Your task to perform on an android device: What's the weather? Image 0: 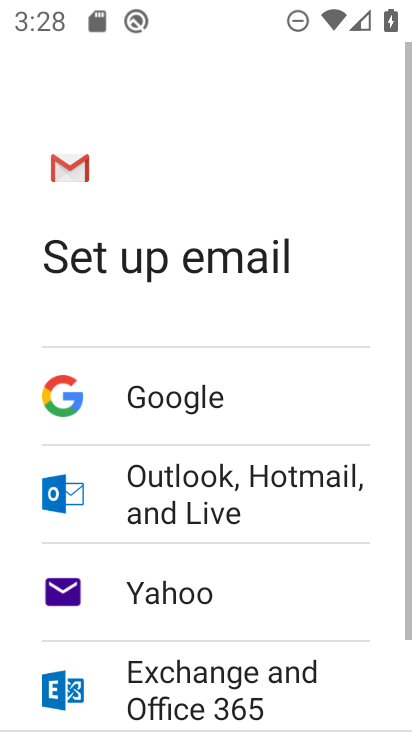
Step 0: press home button
Your task to perform on an android device: What's the weather? Image 1: 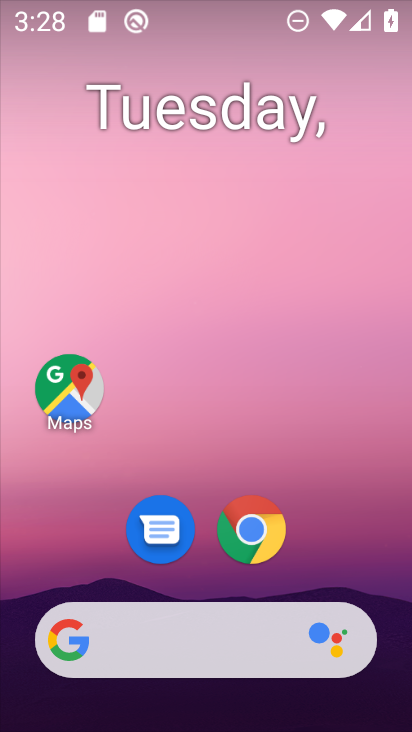
Step 1: click (262, 541)
Your task to perform on an android device: What's the weather? Image 2: 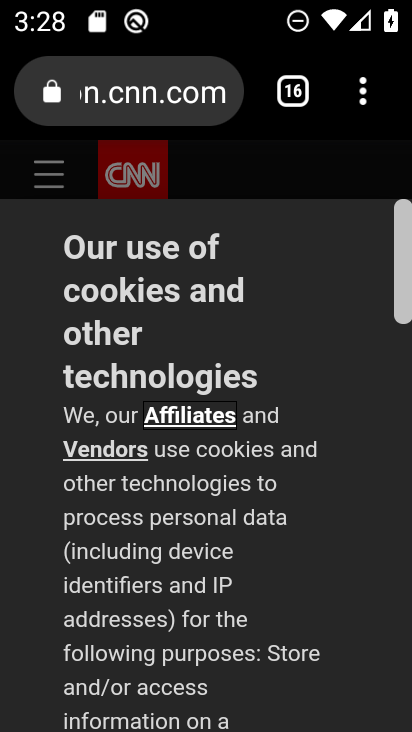
Step 2: click (367, 81)
Your task to perform on an android device: What's the weather? Image 3: 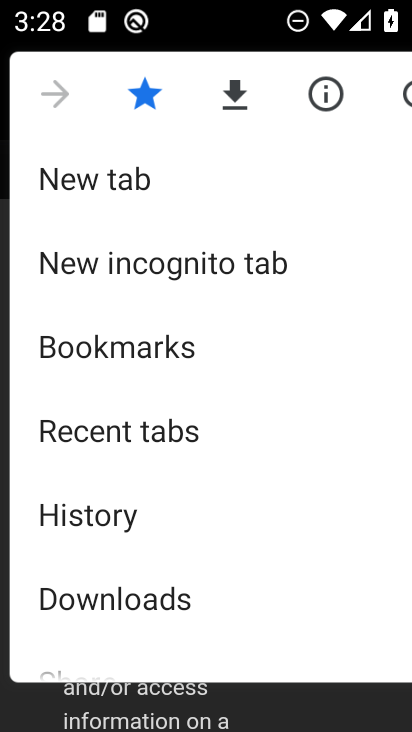
Step 3: click (106, 171)
Your task to perform on an android device: What's the weather? Image 4: 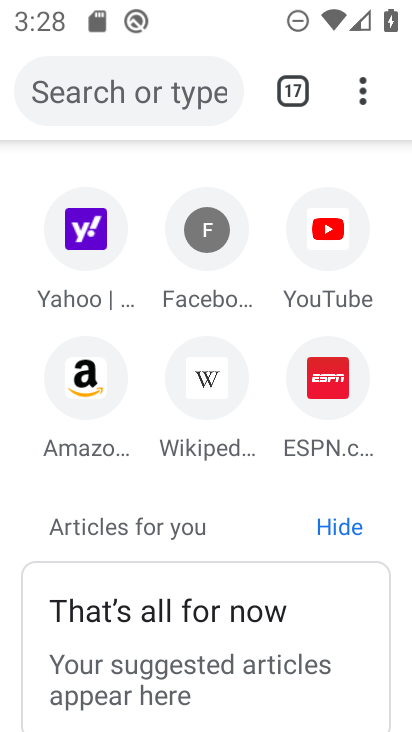
Step 4: click (129, 90)
Your task to perform on an android device: What's the weather? Image 5: 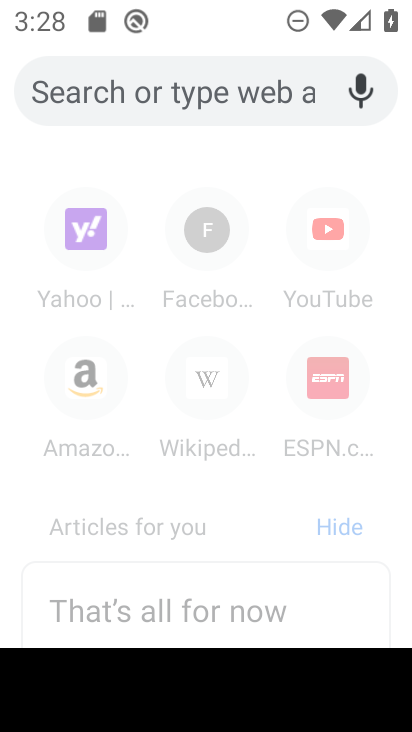
Step 5: type "What's the weather?"
Your task to perform on an android device: What's the weather? Image 6: 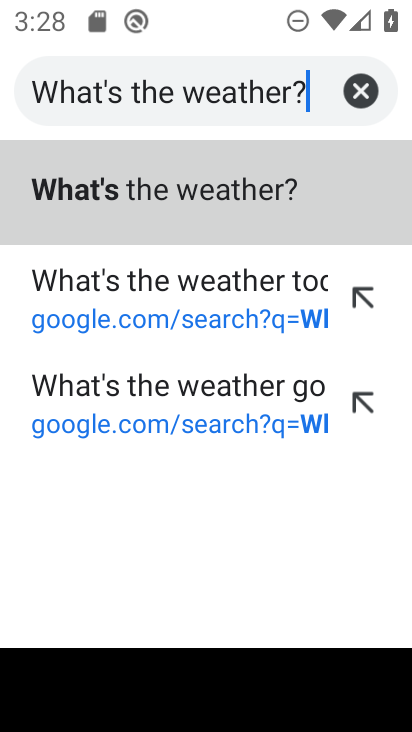
Step 6: click (130, 196)
Your task to perform on an android device: What's the weather? Image 7: 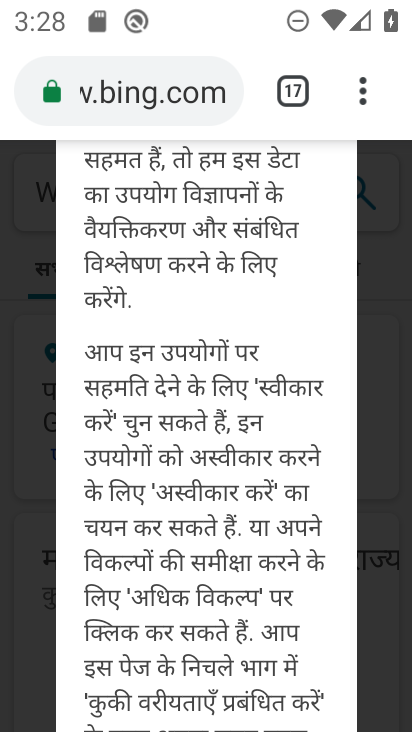
Step 7: drag from (144, 210) to (227, 622)
Your task to perform on an android device: What's the weather? Image 8: 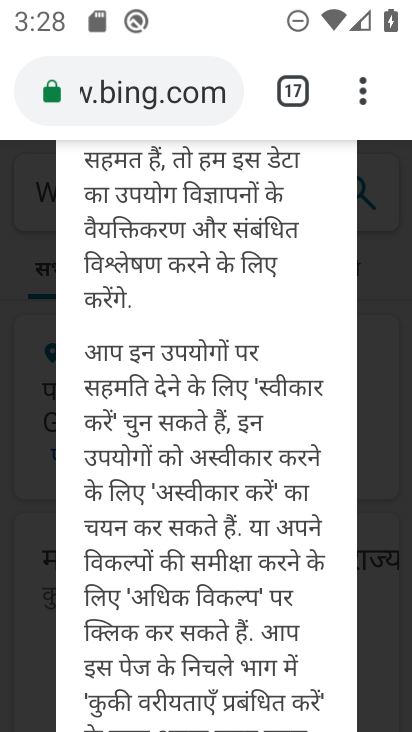
Step 8: click (368, 78)
Your task to perform on an android device: What's the weather? Image 9: 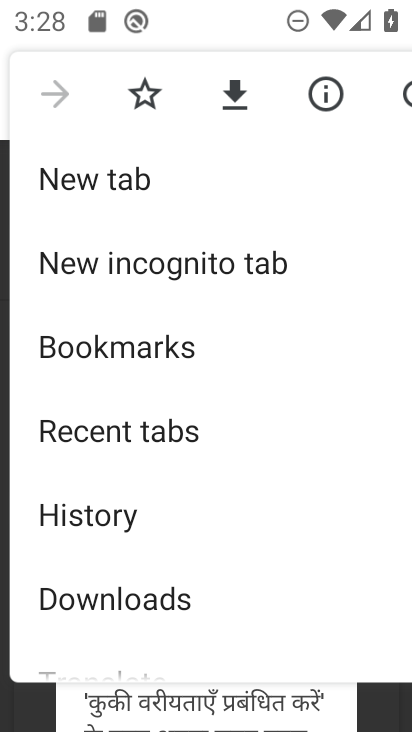
Step 9: click (195, 176)
Your task to perform on an android device: What's the weather? Image 10: 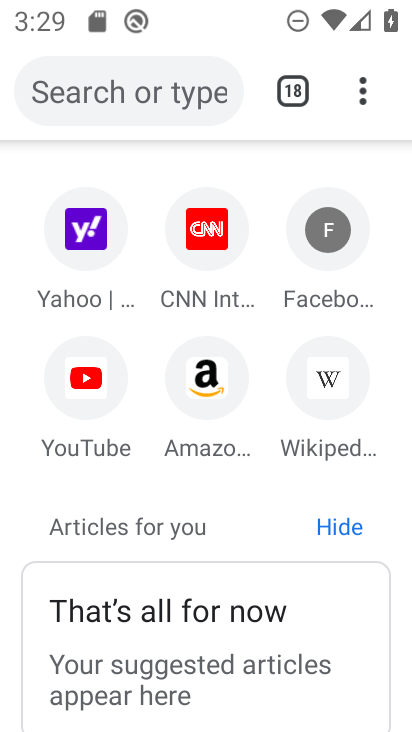
Step 10: click (155, 78)
Your task to perform on an android device: What's the weather? Image 11: 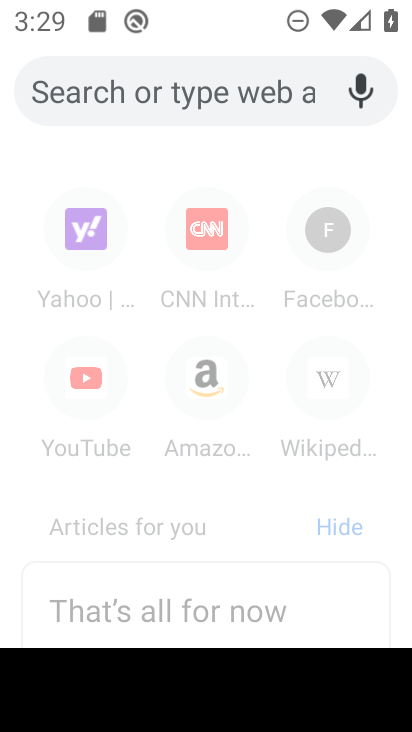
Step 11: type "What's the weather?"
Your task to perform on an android device: What's the weather? Image 12: 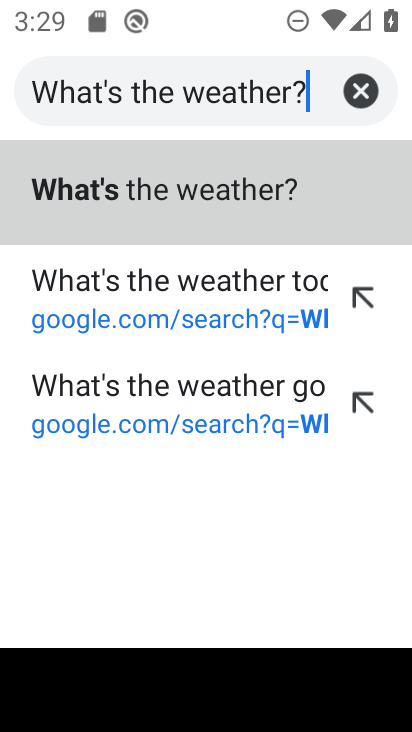
Step 12: click (175, 201)
Your task to perform on an android device: What's the weather? Image 13: 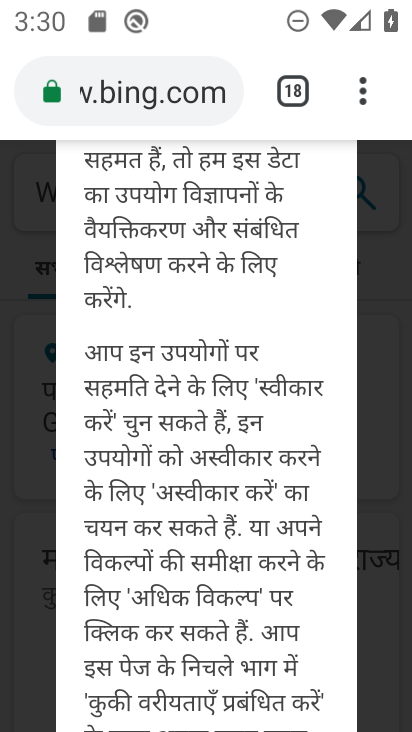
Step 13: task complete